Your task to perform on an android device: star an email in the gmail app Image 0: 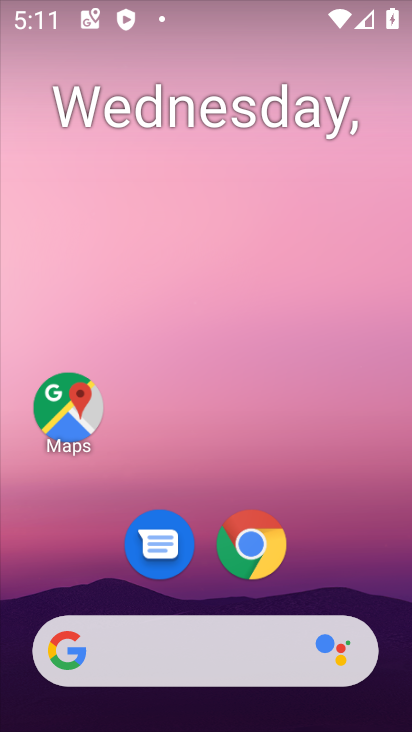
Step 0: drag from (396, 703) to (386, 270)
Your task to perform on an android device: star an email in the gmail app Image 1: 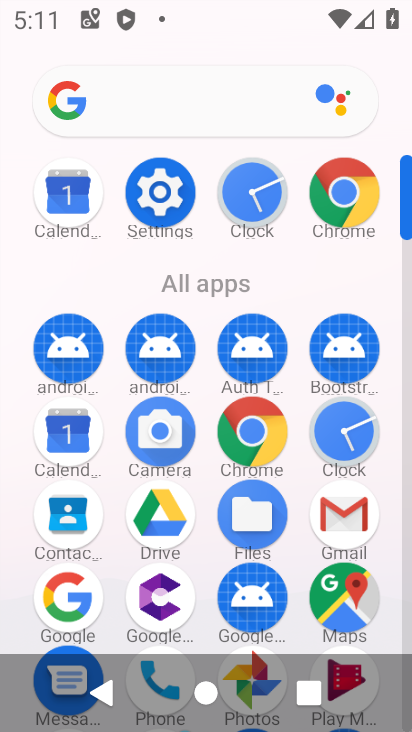
Step 1: click (343, 501)
Your task to perform on an android device: star an email in the gmail app Image 2: 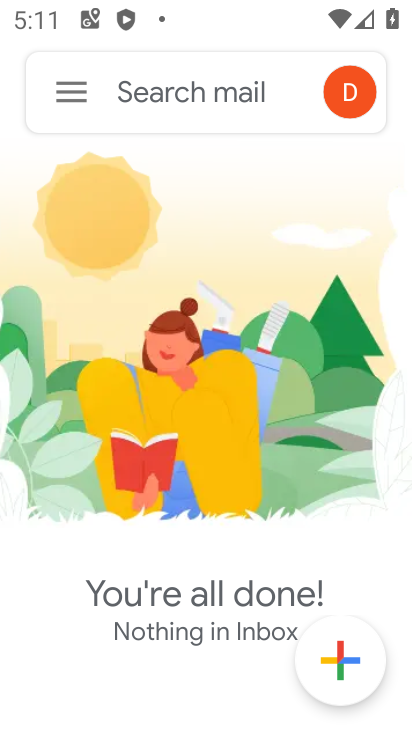
Step 2: click (73, 91)
Your task to perform on an android device: star an email in the gmail app Image 3: 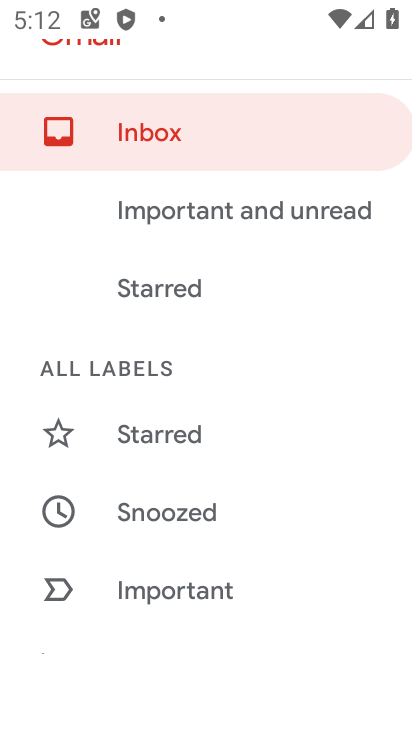
Step 3: click (147, 135)
Your task to perform on an android device: star an email in the gmail app Image 4: 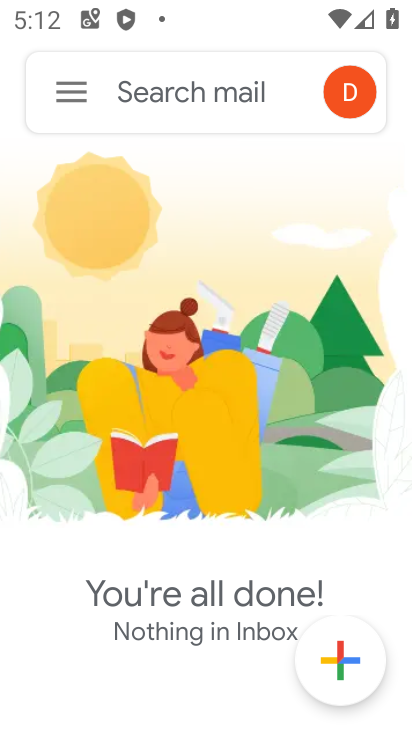
Step 4: task complete